Your task to perform on an android device: Search for Italian restaurants on Maps Image 0: 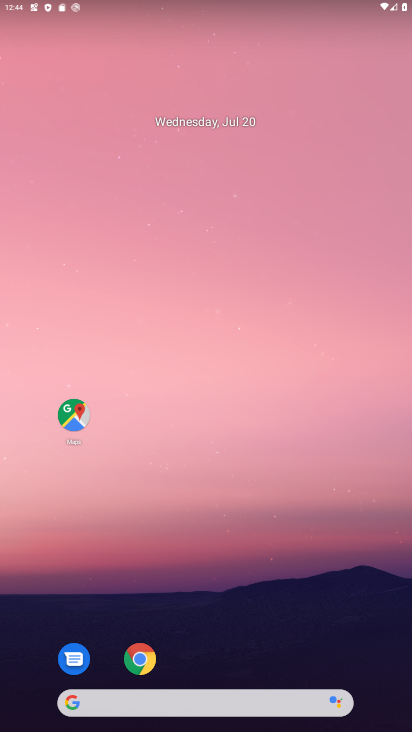
Step 0: drag from (222, 577) to (233, 528)
Your task to perform on an android device: Search for Italian restaurants on Maps Image 1: 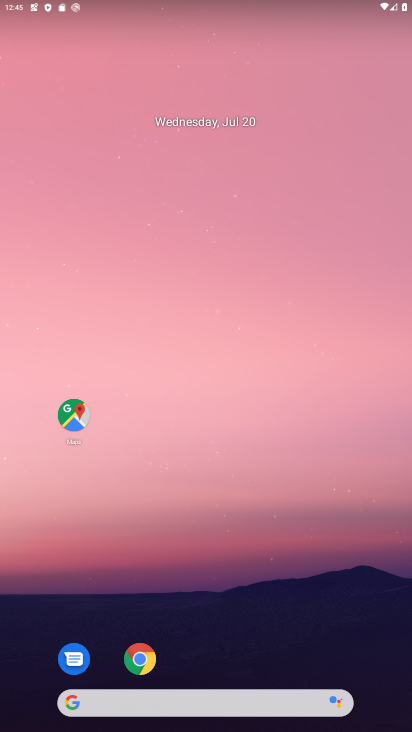
Step 1: click (76, 418)
Your task to perform on an android device: Search for Italian restaurants on Maps Image 2: 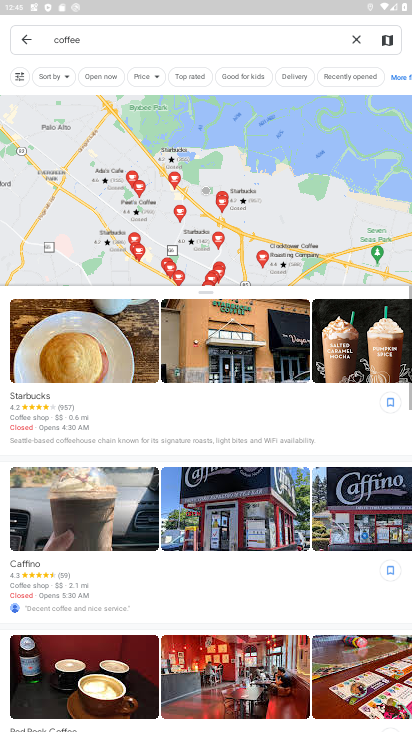
Step 2: click (224, 49)
Your task to perform on an android device: Search for Italian restaurants on Maps Image 3: 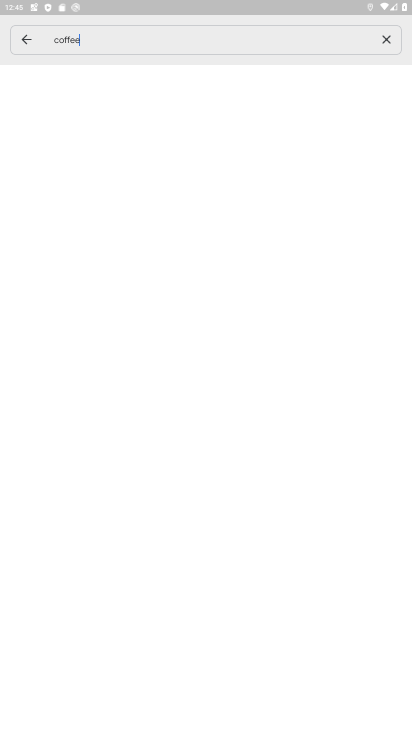
Step 3: click (353, 36)
Your task to perform on an android device: Search for Italian restaurants on Maps Image 4: 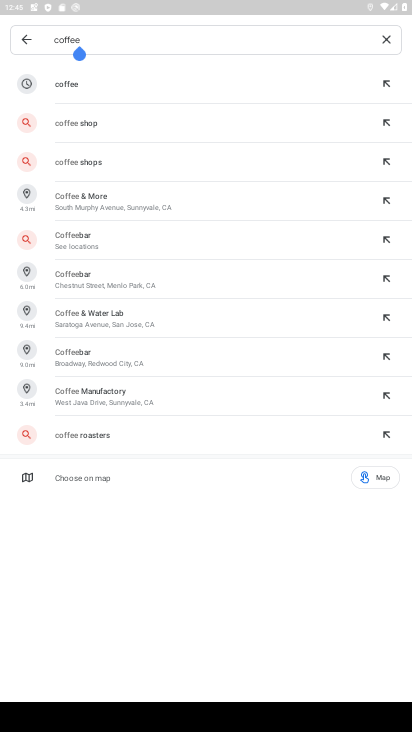
Step 4: click (384, 37)
Your task to perform on an android device: Search for Italian restaurants on Maps Image 5: 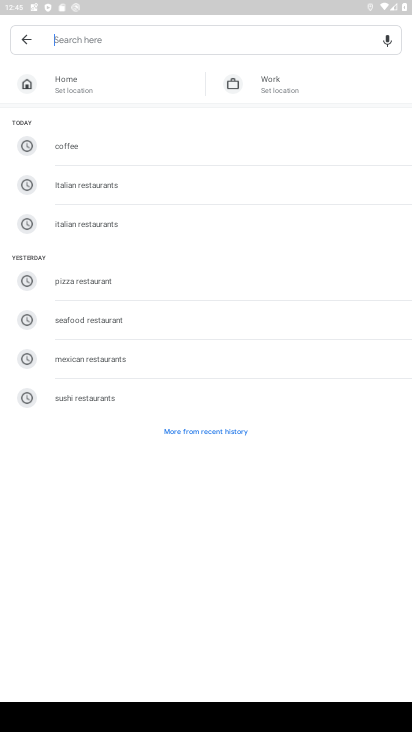
Step 5: type "Italian restaurants "
Your task to perform on an android device: Search for Italian restaurants on Maps Image 6: 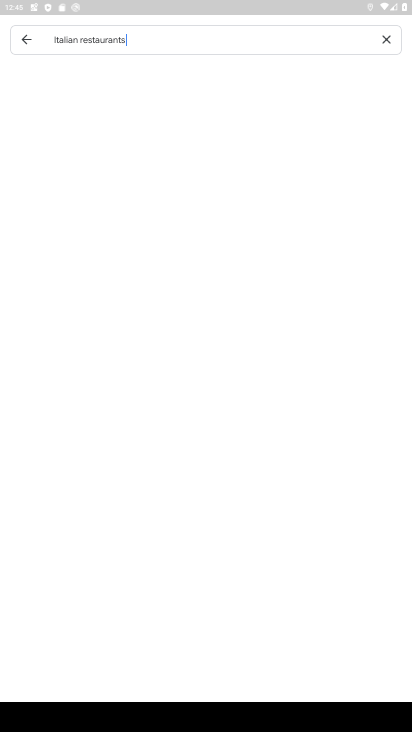
Step 6: press enter
Your task to perform on an android device: Search for Italian restaurants on Maps Image 7: 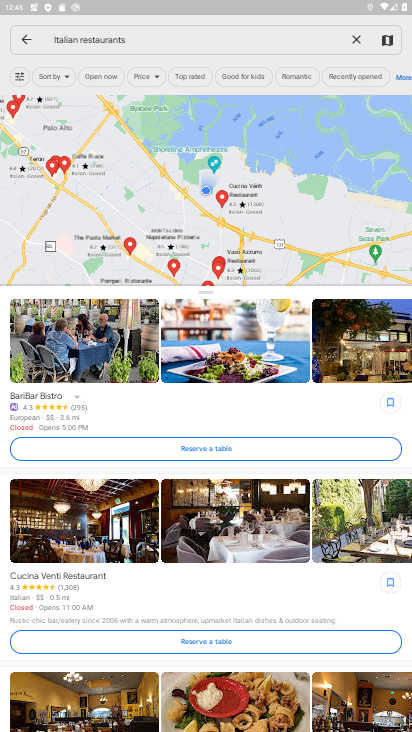
Step 7: task complete